Your task to perform on an android device: Go to ESPN.com Image 0: 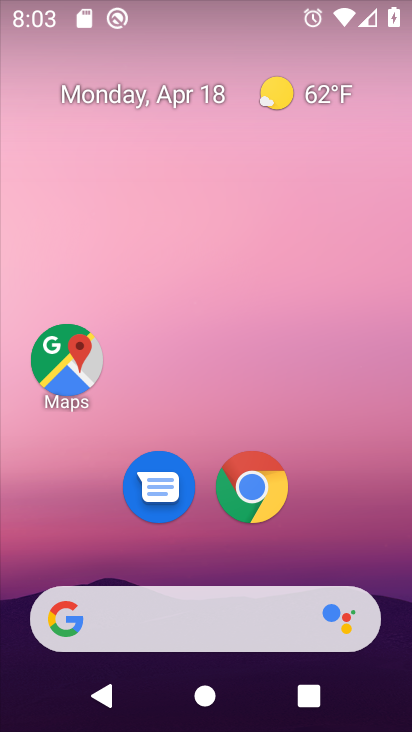
Step 0: press home button
Your task to perform on an android device: Go to ESPN.com Image 1: 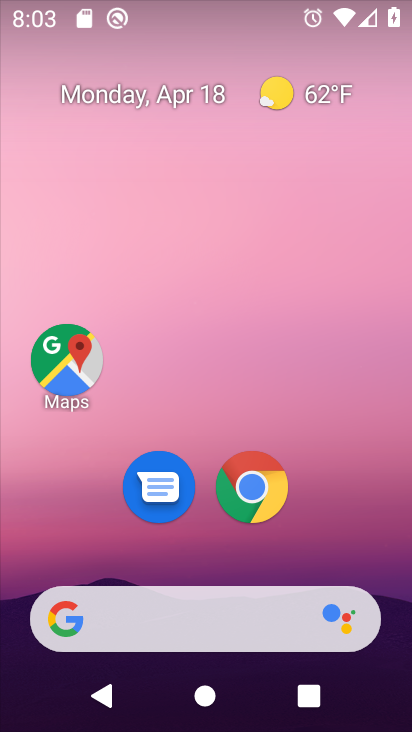
Step 1: click (247, 480)
Your task to perform on an android device: Go to ESPN.com Image 2: 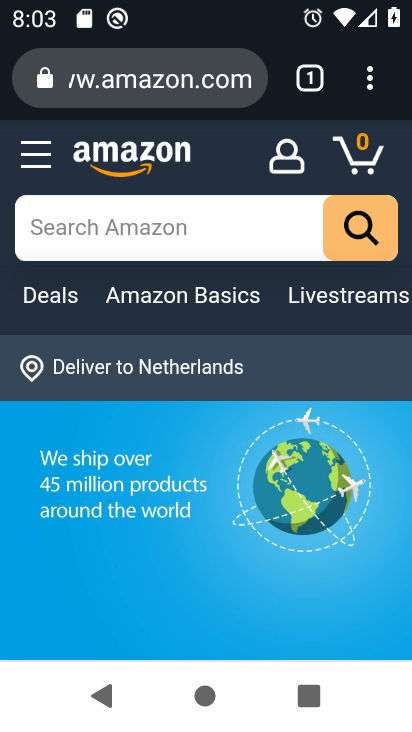
Step 2: click (308, 72)
Your task to perform on an android device: Go to ESPN.com Image 3: 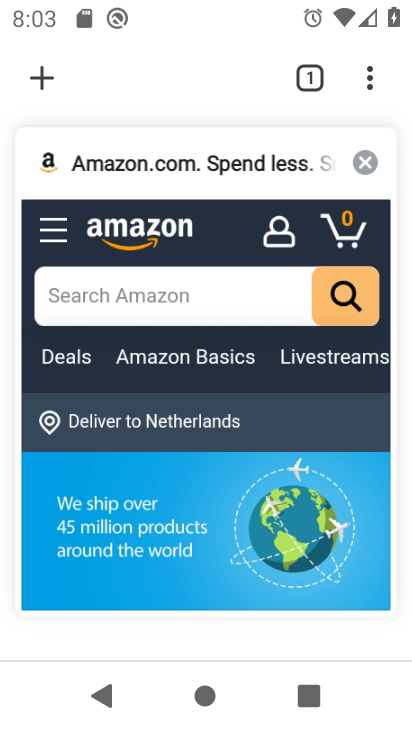
Step 3: click (38, 69)
Your task to perform on an android device: Go to ESPN.com Image 4: 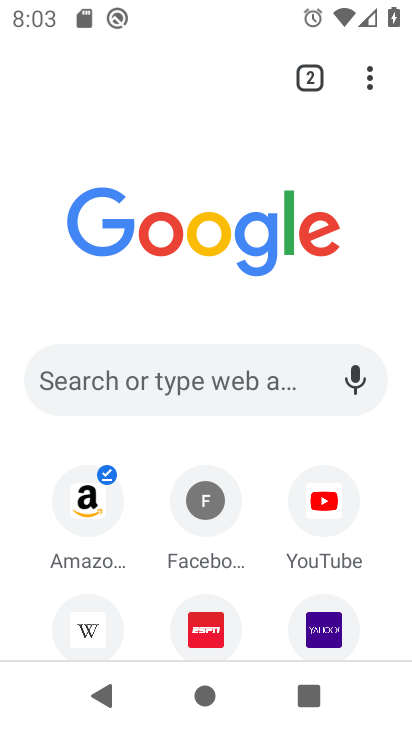
Step 4: click (212, 631)
Your task to perform on an android device: Go to ESPN.com Image 5: 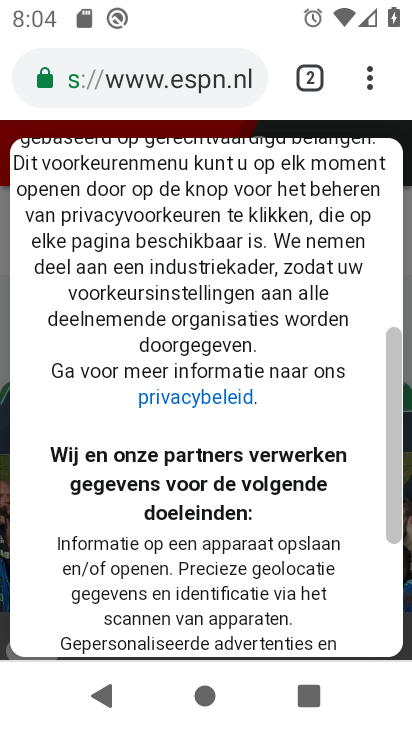
Step 5: drag from (208, 591) to (244, 167)
Your task to perform on an android device: Go to ESPN.com Image 6: 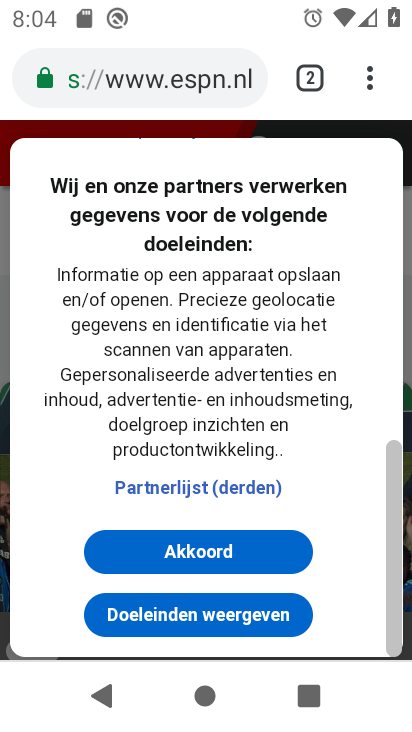
Step 6: click (196, 546)
Your task to perform on an android device: Go to ESPN.com Image 7: 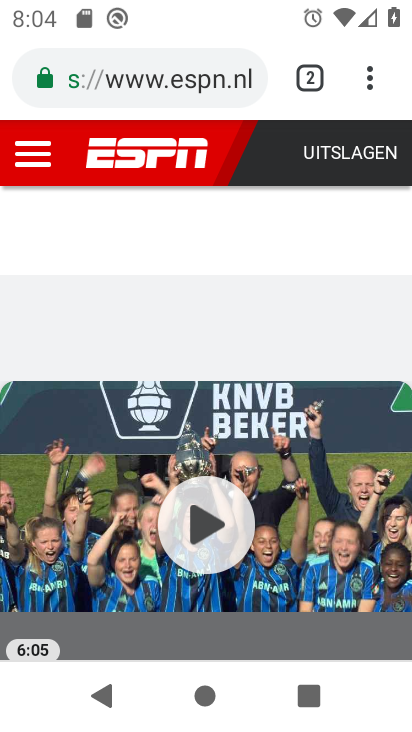
Step 7: task complete